Your task to perform on an android device: Open notification settings Image 0: 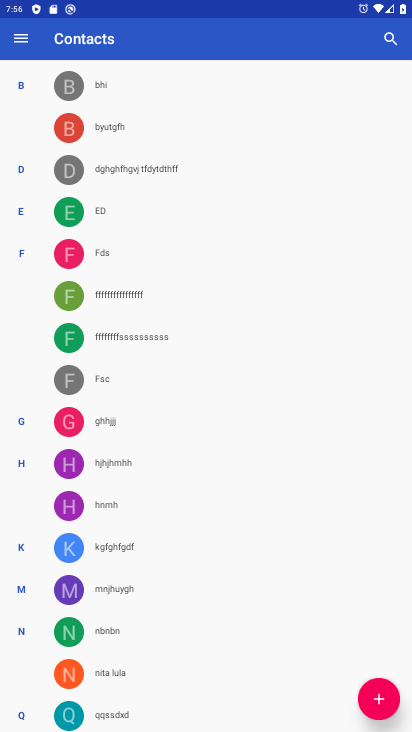
Step 0: press home button
Your task to perform on an android device: Open notification settings Image 1: 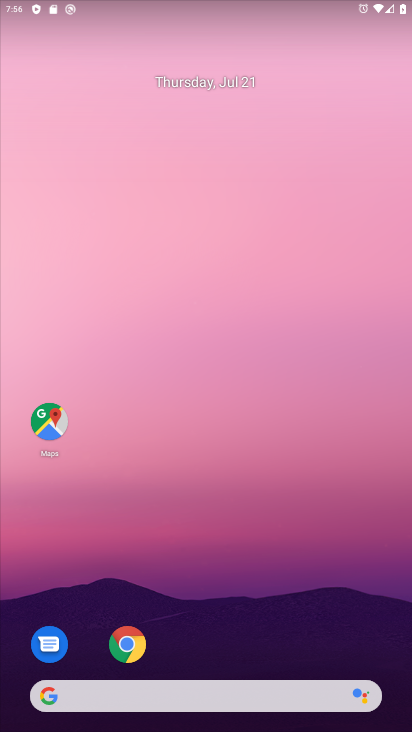
Step 1: drag from (380, 602) to (404, 158)
Your task to perform on an android device: Open notification settings Image 2: 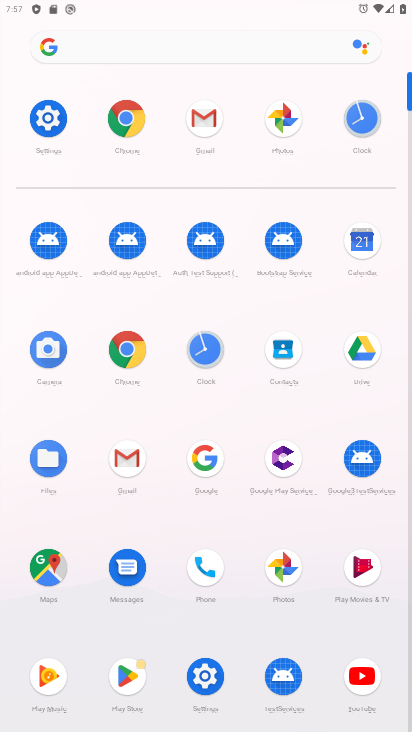
Step 2: click (54, 122)
Your task to perform on an android device: Open notification settings Image 3: 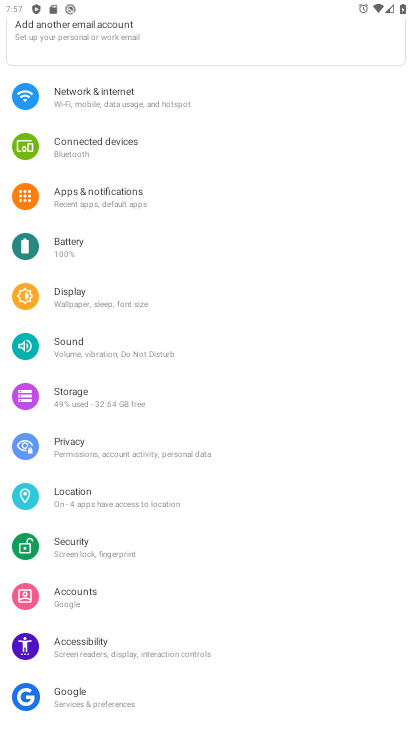
Step 3: drag from (268, 237) to (274, 299)
Your task to perform on an android device: Open notification settings Image 4: 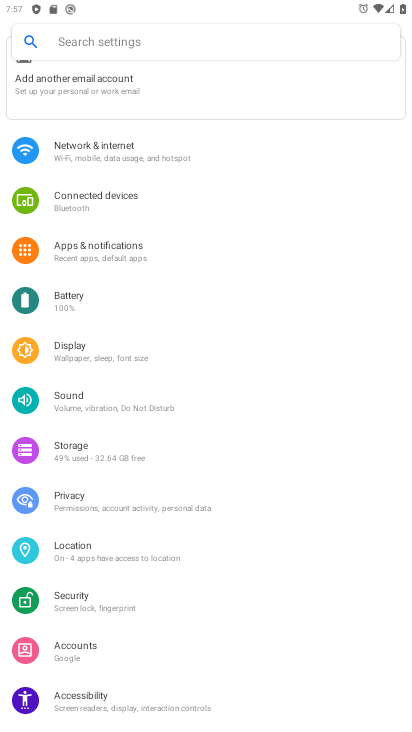
Step 4: drag from (282, 222) to (278, 279)
Your task to perform on an android device: Open notification settings Image 5: 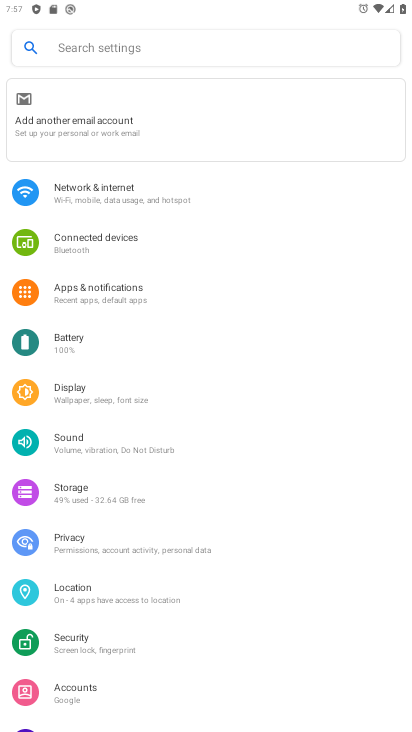
Step 5: click (180, 308)
Your task to perform on an android device: Open notification settings Image 6: 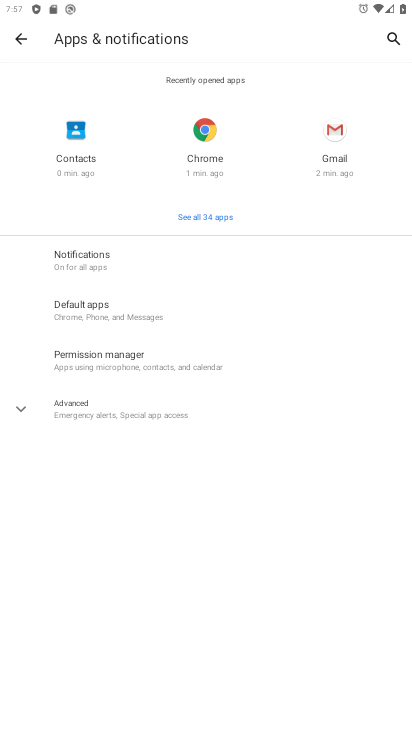
Step 6: click (127, 260)
Your task to perform on an android device: Open notification settings Image 7: 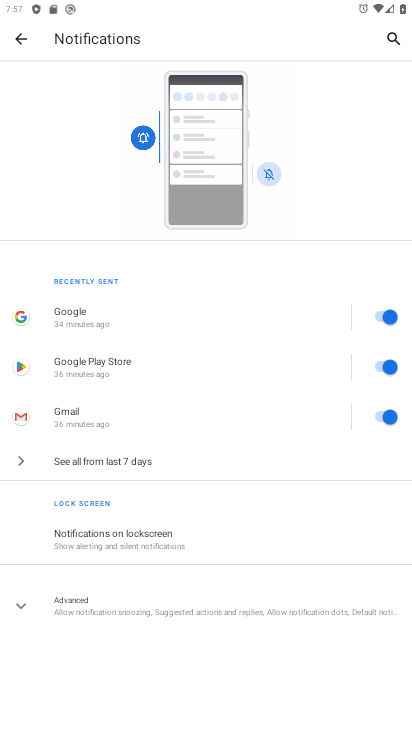
Step 7: task complete